Your task to perform on an android device: Go to internet settings Image 0: 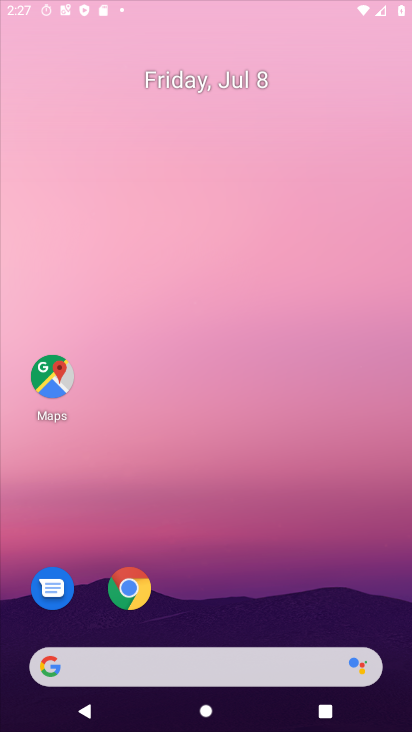
Step 0: press home button
Your task to perform on an android device: Go to internet settings Image 1: 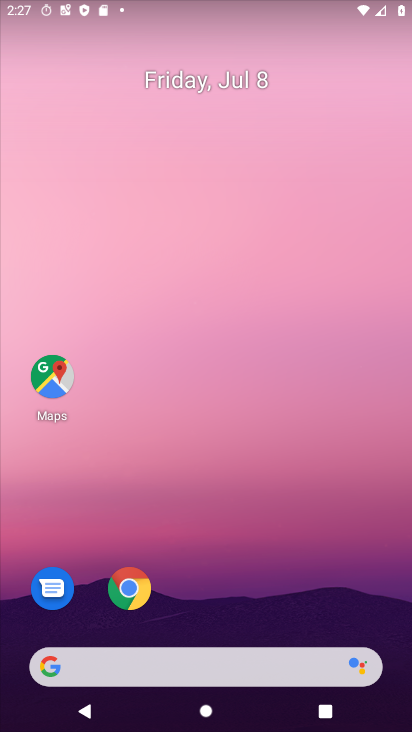
Step 1: drag from (254, 621) to (317, 152)
Your task to perform on an android device: Go to internet settings Image 2: 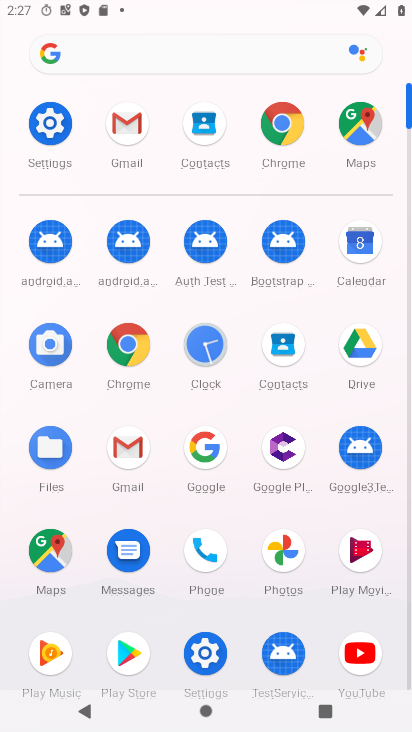
Step 2: click (49, 129)
Your task to perform on an android device: Go to internet settings Image 3: 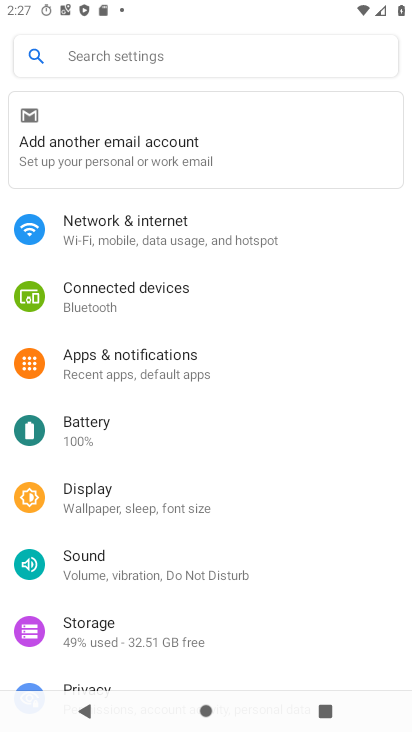
Step 3: click (131, 238)
Your task to perform on an android device: Go to internet settings Image 4: 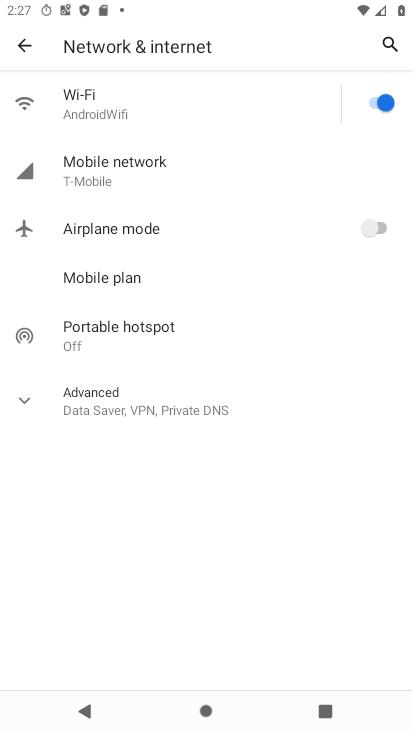
Step 4: task complete